Your task to perform on an android device: show emergency info Image 0: 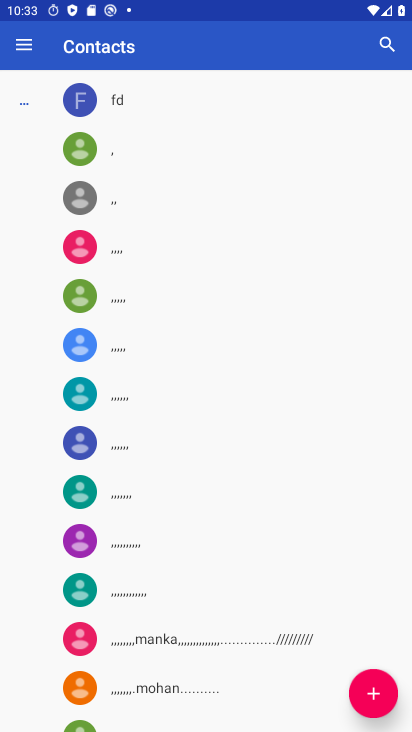
Step 0: press home button
Your task to perform on an android device: show emergency info Image 1: 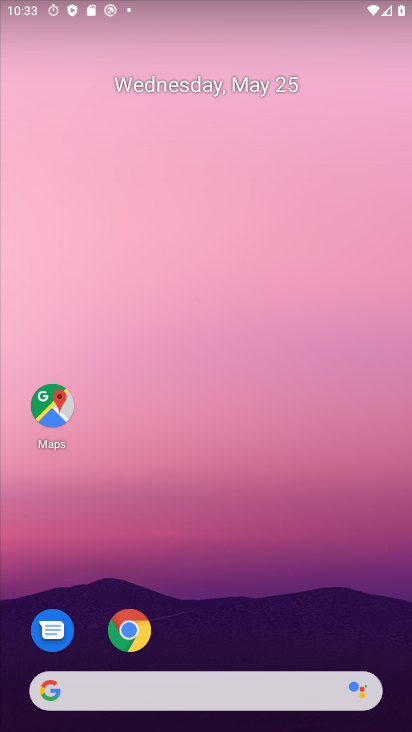
Step 1: drag from (381, 710) to (353, 262)
Your task to perform on an android device: show emergency info Image 2: 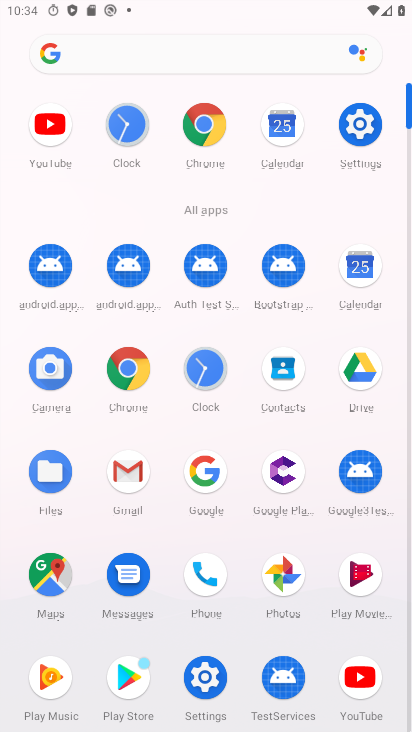
Step 2: click (370, 131)
Your task to perform on an android device: show emergency info Image 3: 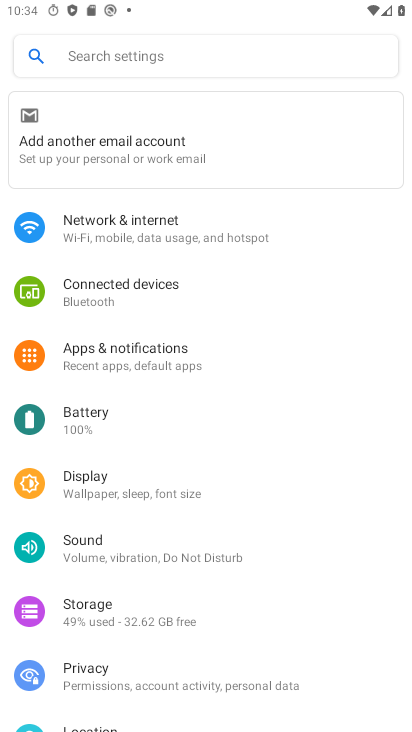
Step 3: drag from (333, 701) to (325, 99)
Your task to perform on an android device: show emergency info Image 4: 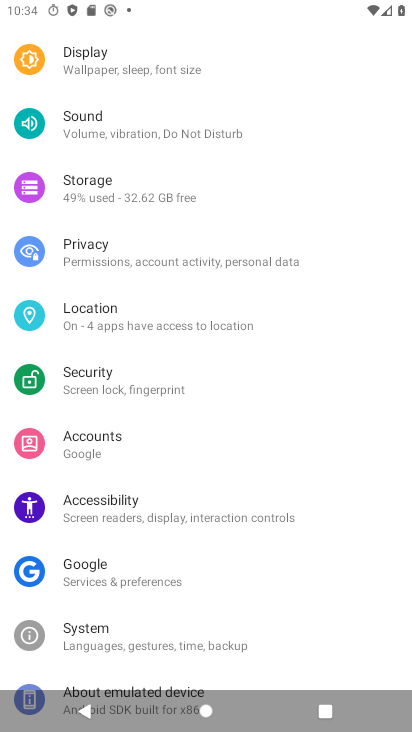
Step 4: drag from (313, 657) to (336, 296)
Your task to perform on an android device: show emergency info Image 5: 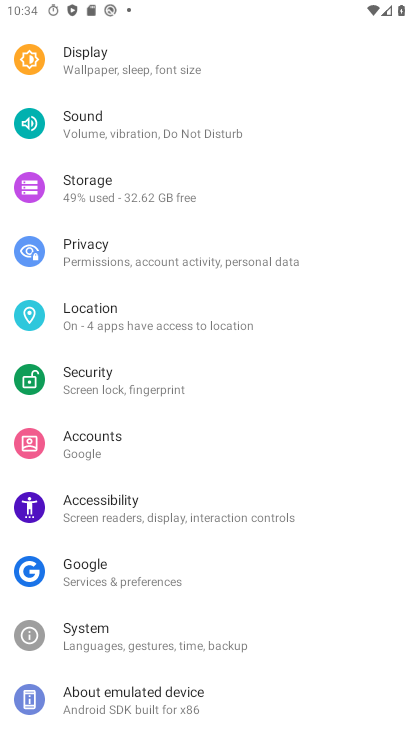
Step 5: click (121, 687)
Your task to perform on an android device: show emergency info Image 6: 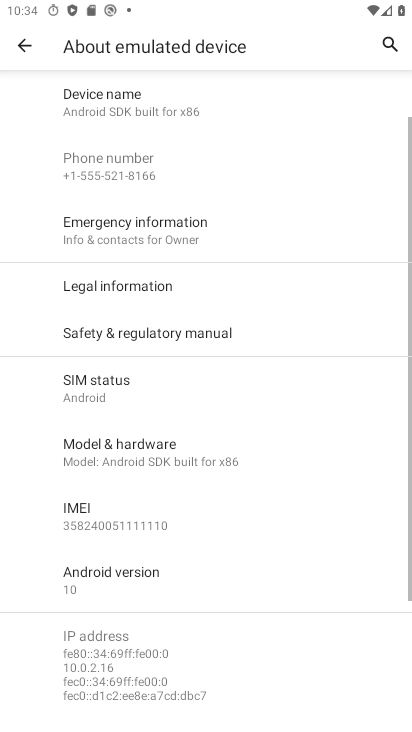
Step 6: click (140, 223)
Your task to perform on an android device: show emergency info Image 7: 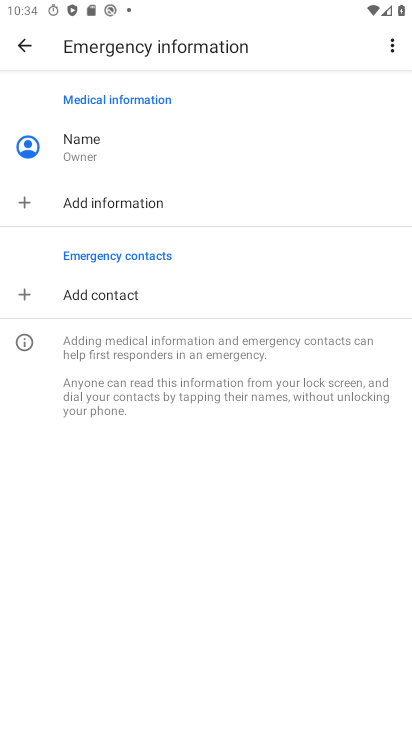
Step 7: task complete